Your task to perform on an android device: set the timer Image 0: 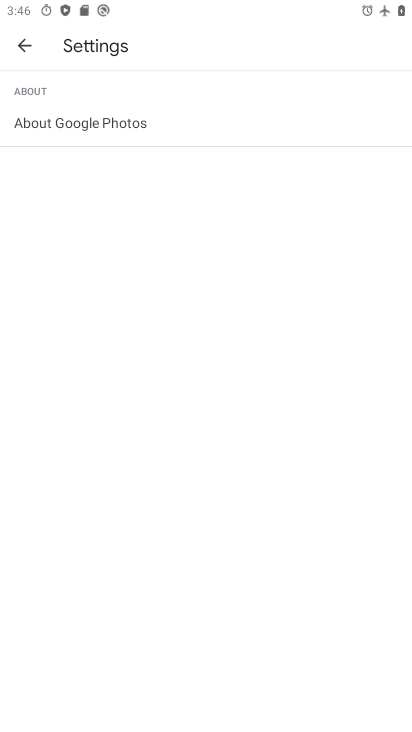
Step 0: press home button
Your task to perform on an android device: set the timer Image 1: 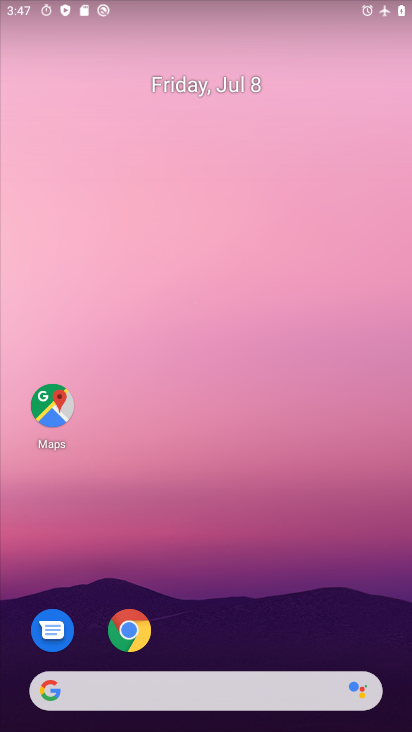
Step 1: drag from (286, 583) to (292, 234)
Your task to perform on an android device: set the timer Image 2: 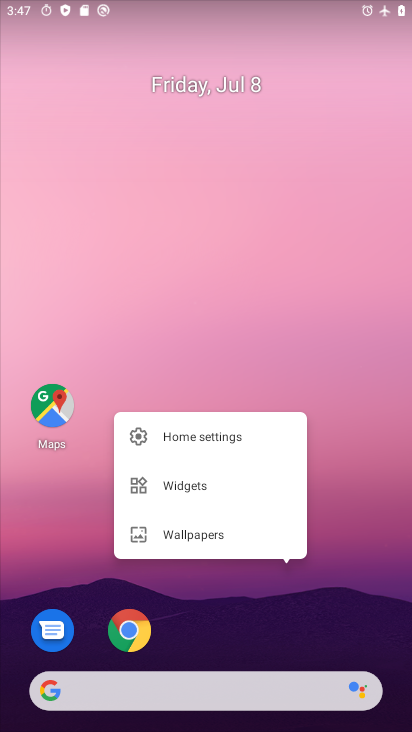
Step 2: drag from (332, 363) to (388, 82)
Your task to perform on an android device: set the timer Image 3: 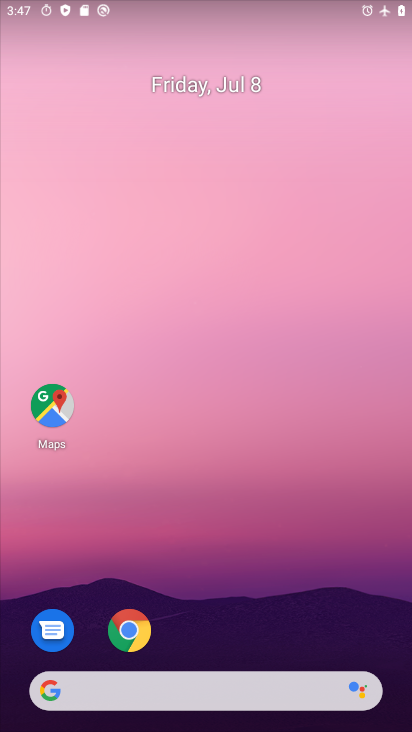
Step 3: drag from (253, 364) to (293, 100)
Your task to perform on an android device: set the timer Image 4: 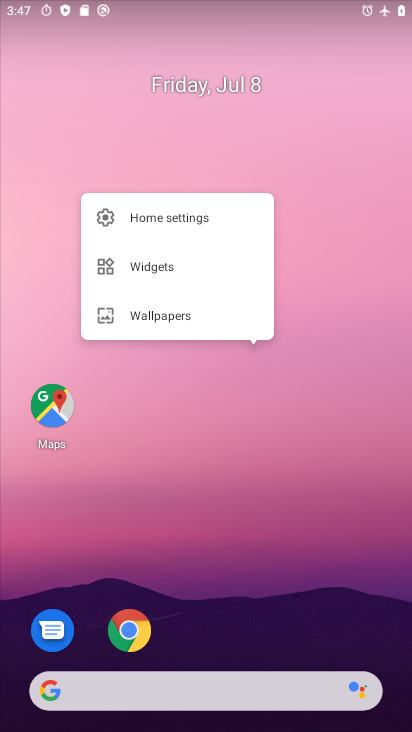
Step 4: click (289, 503)
Your task to perform on an android device: set the timer Image 5: 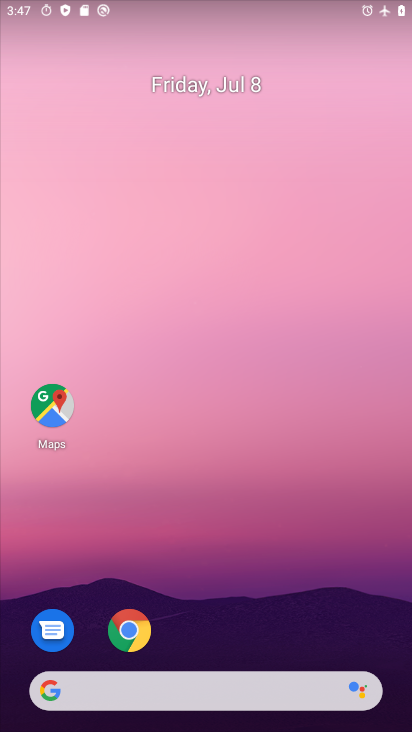
Step 5: drag from (289, 503) to (345, 186)
Your task to perform on an android device: set the timer Image 6: 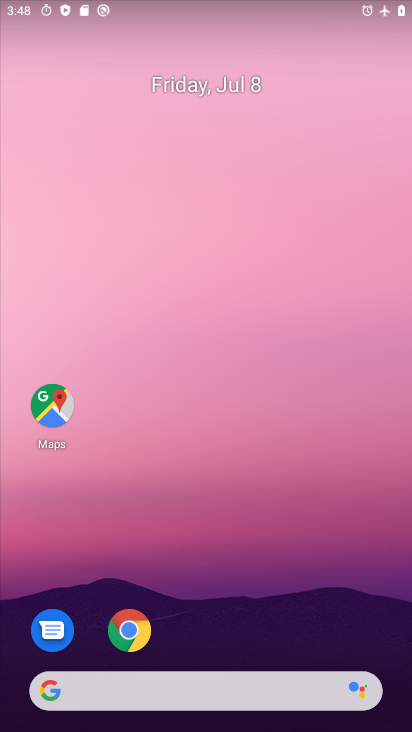
Step 6: drag from (313, 537) to (346, 168)
Your task to perform on an android device: set the timer Image 7: 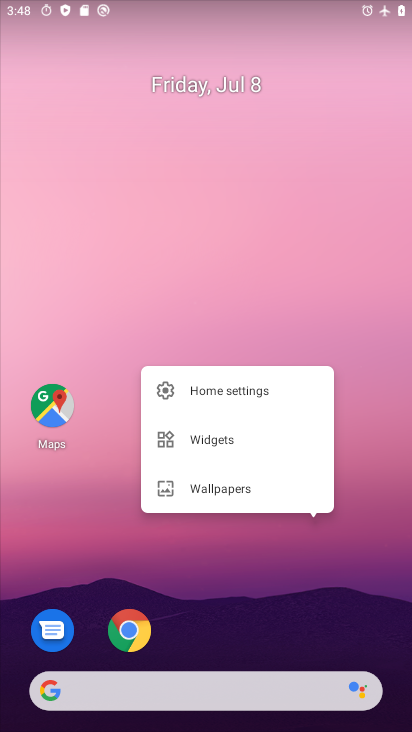
Step 7: click (349, 318)
Your task to perform on an android device: set the timer Image 8: 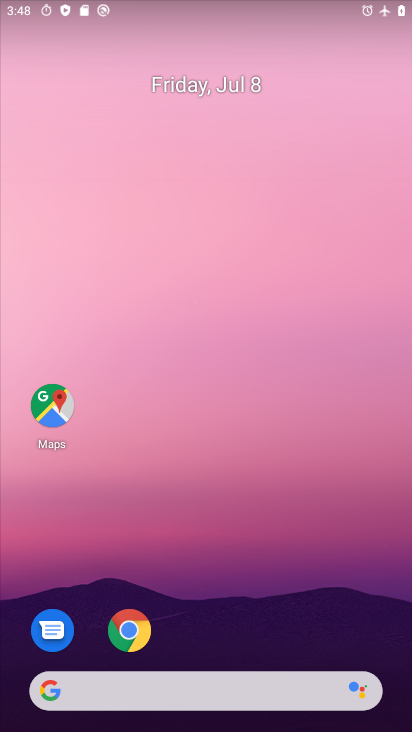
Step 8: drag from (234, 528) to (306, 187)
Your task to perform on an android device: set the timer Image 9: 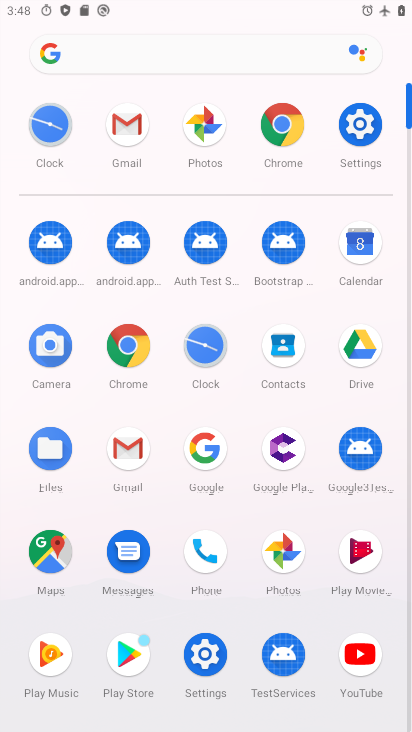
Step 9: click (199, 348)
Your task to perform on an android device: set the timer Image 10: 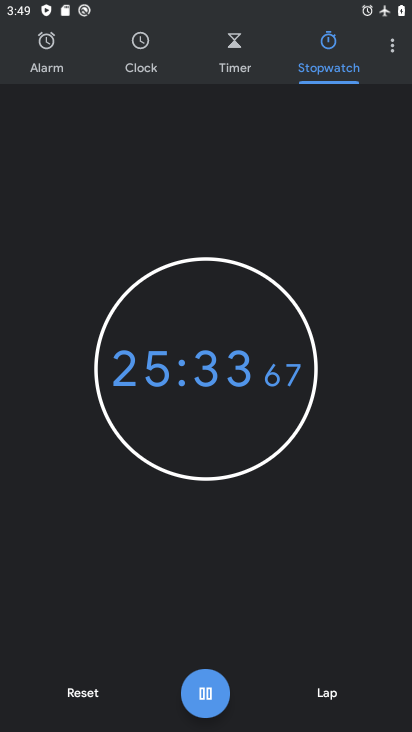
Step 10: click (202, 702)
Your task to perform on an android device: set the timer Image 11: 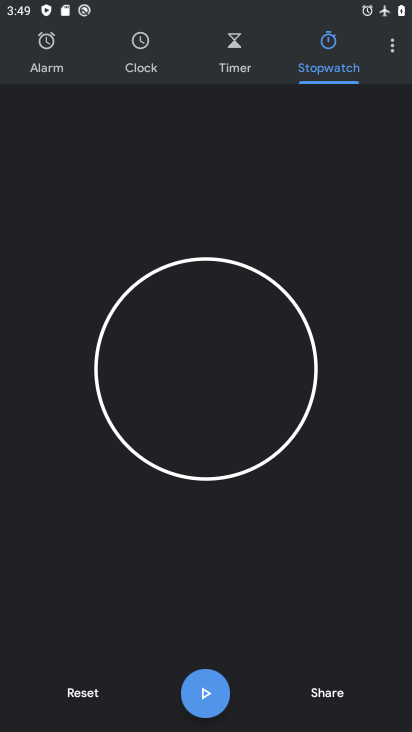
Step 11: task complete